Your task to perform on an android device: turn off translation in the chrome app Image 0: 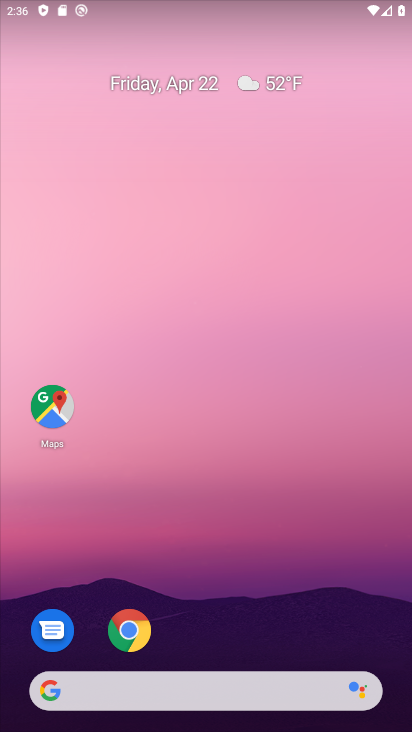
Step 0: click (131, 631)
Your task to perform on an android device: turn off translation in the chrome app Image 1: 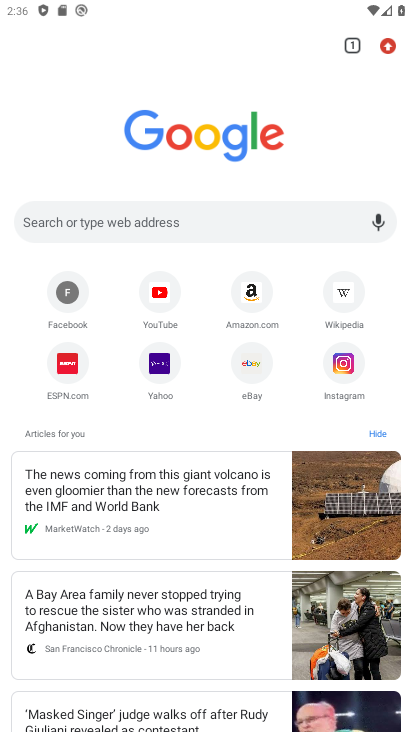
Step 1: click (384, 44)
Your task to perform on an android device: turn off translation in the chrome app Image 2: 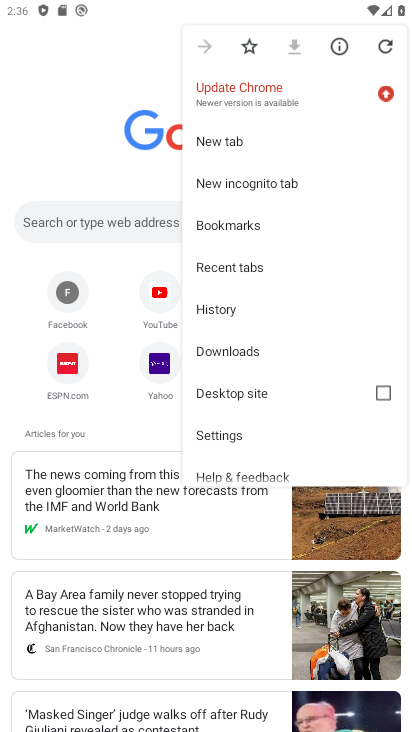
Step 2: click (228, 434)
Your task to perform on an android device: turn off translation in the chrome app Image 3: 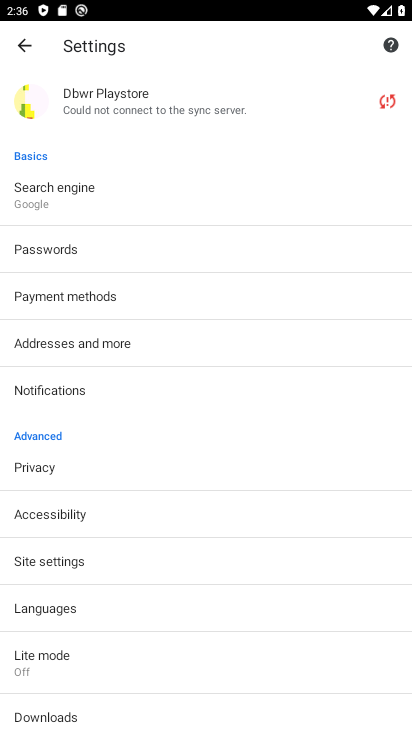
Step 3: click (35, 609)
Your task to perform on an android device: turn off translation in the chrome app Image 4: 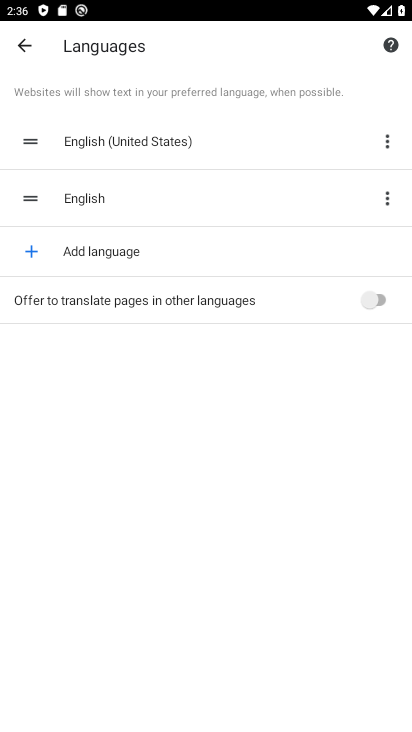
Step 4: task complete